Your task to perform on an android device: Go to ESPN.com Image 0: 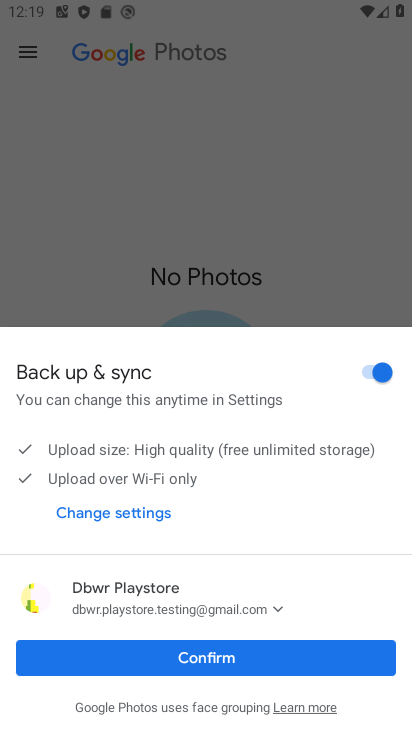
Step 0: press home button
Your task to perform on an android device: Go to ESPN.com Image 1: 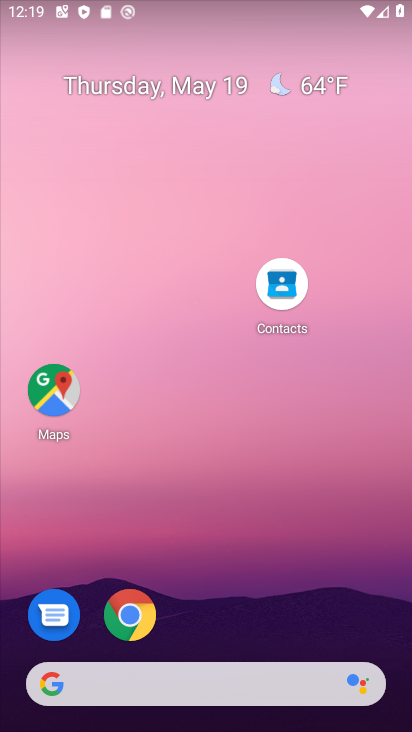
Step 1: click (138, 626)
Your task to perform on an android device: Go to ESPN.com Image 2: 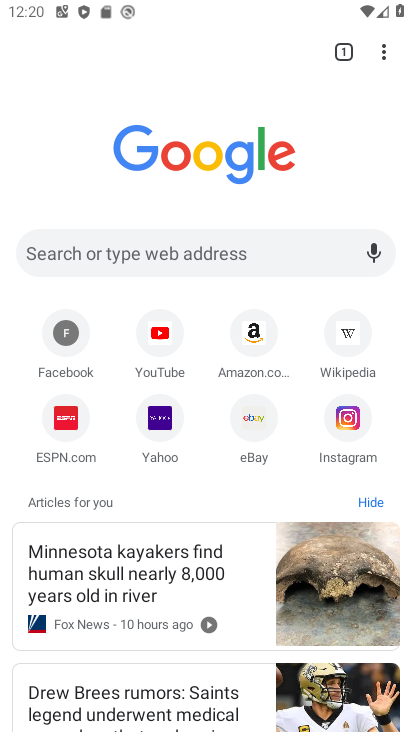
Step 2: click (216, 266)
Your task to perform on an android device: Go to ESPN.com Image 3: 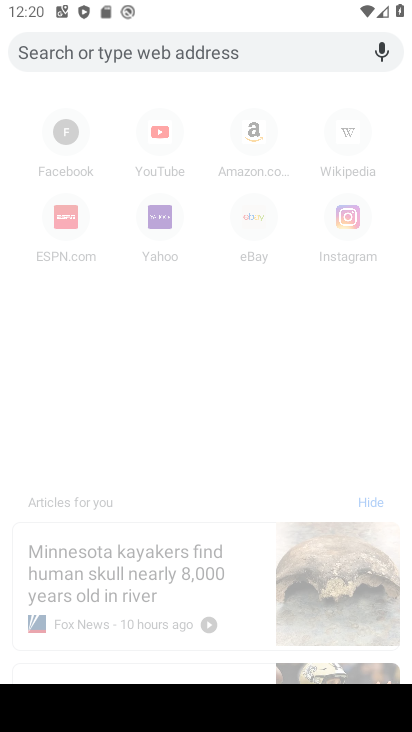
Step 3: click (95, 242)
Your task to perform on an android device: Go to ESPN.com Image 4: 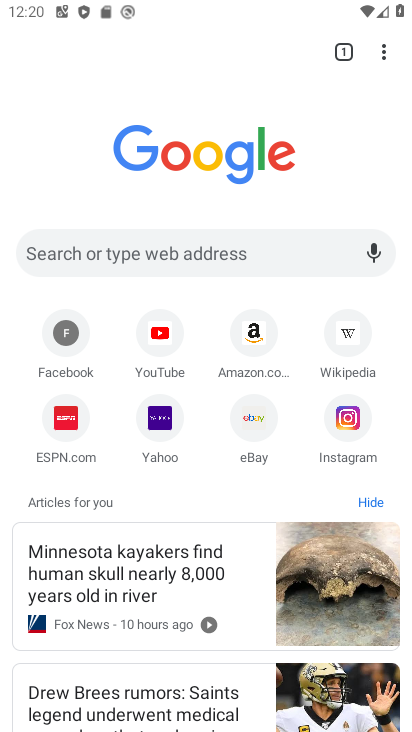
Step 4: click (56, 450)
Your task to perform on an android device: Go to ESPN.com Image 5: 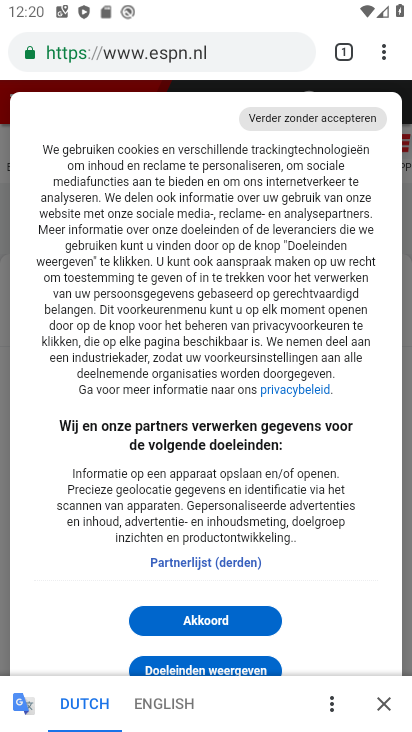
Step 5: task complete